Your task to perform on an android device: Open settings on Google Maps Image 0: 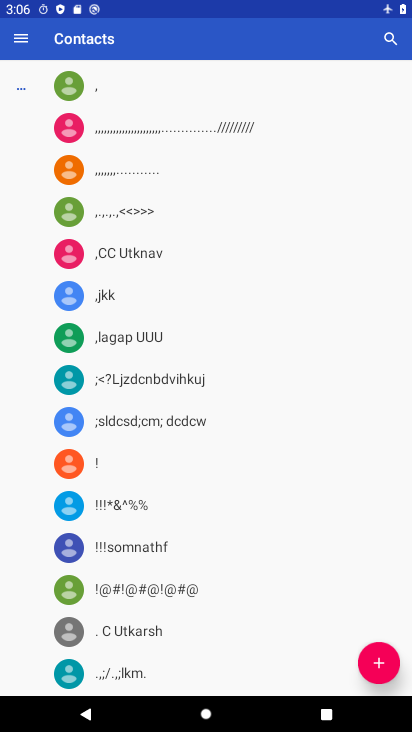
Step 0: press home button
Your task to perform on an android device: Open settings on Google Maps Image 1: 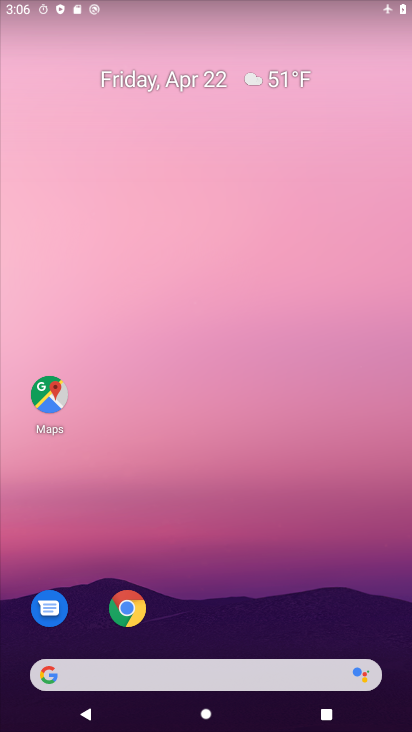
Step 1: click (47, 397)
Your task to perform on an android device: Open settings on Google Maps Image 2: 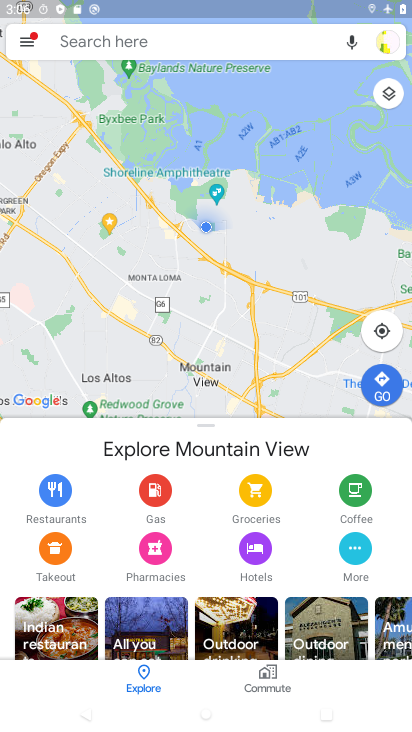
Step 2: click (25, 42)
Your task to perform on an android device: Open settings on Google Maps Image 3: 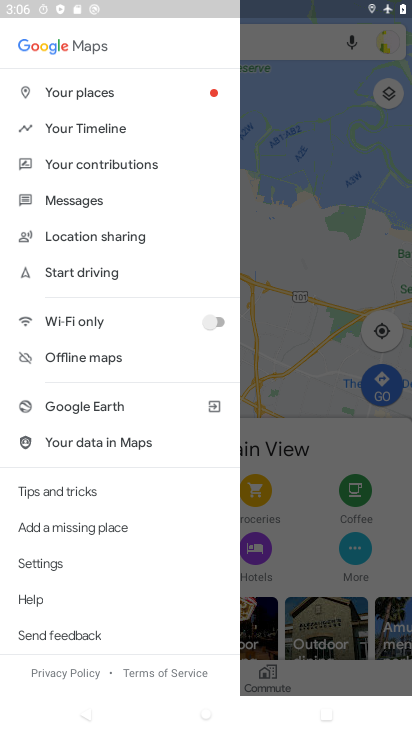
Step 3: click (47, 566)
Your task to perform on an android device: Open settings on Google Maps Image 4: 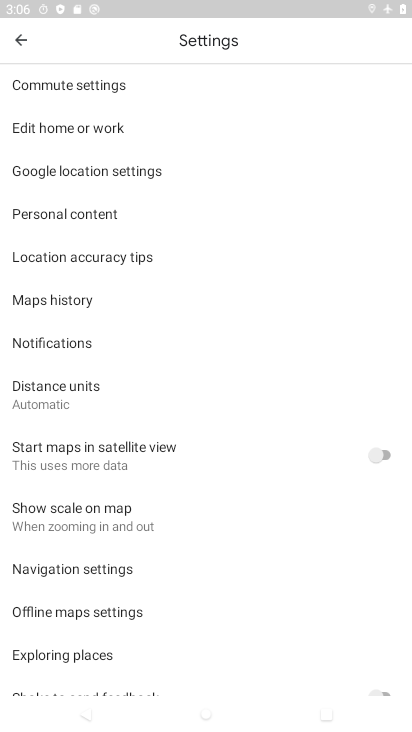
Step 4: click (249, 604)
Your task to perform on an android device: Open settings on Google Maps Image 5: 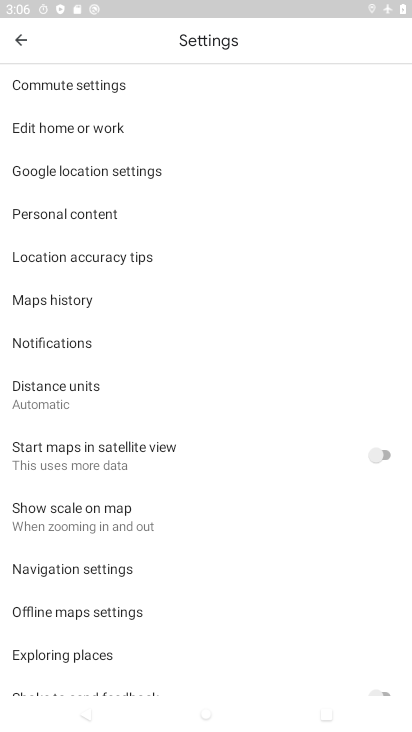
Step 5: task complete